Your task to perform on an android device: open chrome and create a bookmark for the current page Image 0: 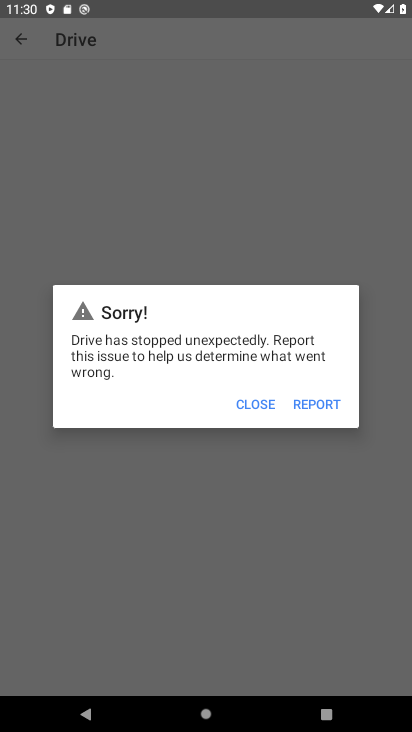
Step 0: press home button
Your task to perform on an android device: open chrome and create a bookmark for the current page Image 1: 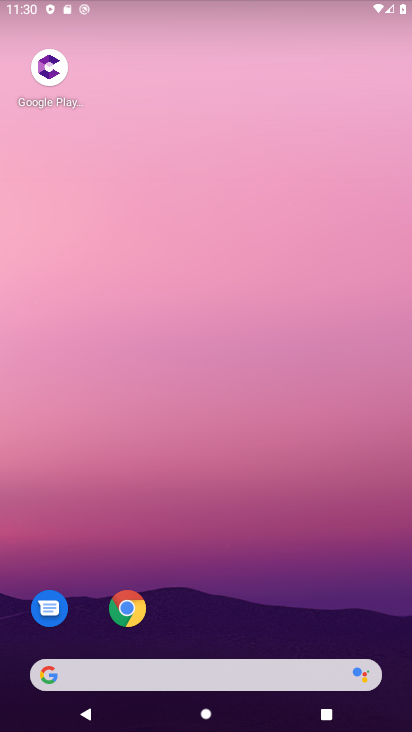
Step 1: drag from (151, 710) to (294, 0)
Your task to perform on an android device: open chrome and create a bookmark for the current page Image 2: 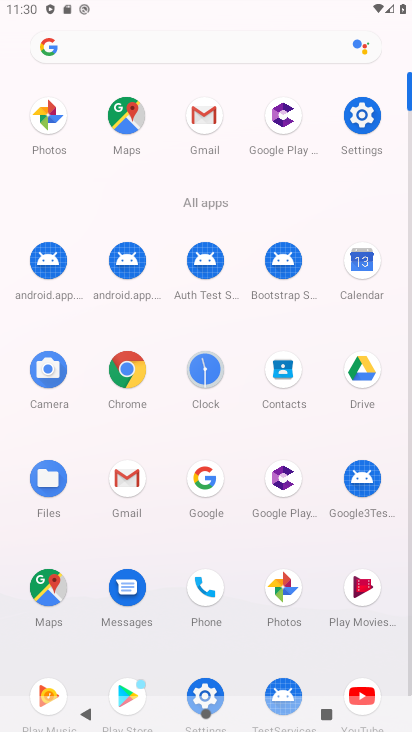
Step 2: click (130, 370)
Your task to perform on an android device: open chrome and create a bookmark for the current page Image 3: 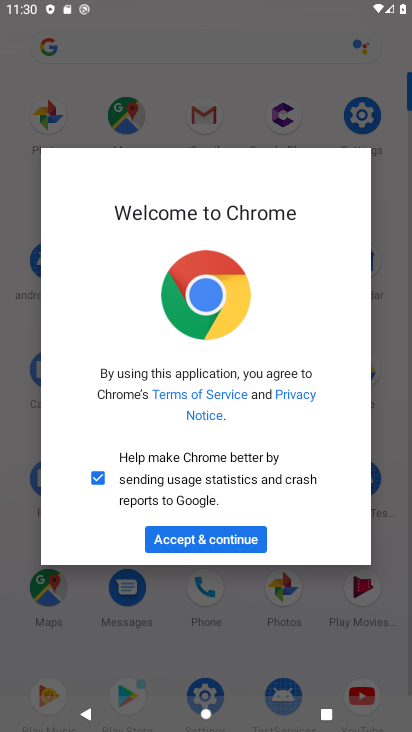
Step 3: click (225, 540)
Your task to perform on an android device: open chrome and create a bookmark for the current page Image 4: 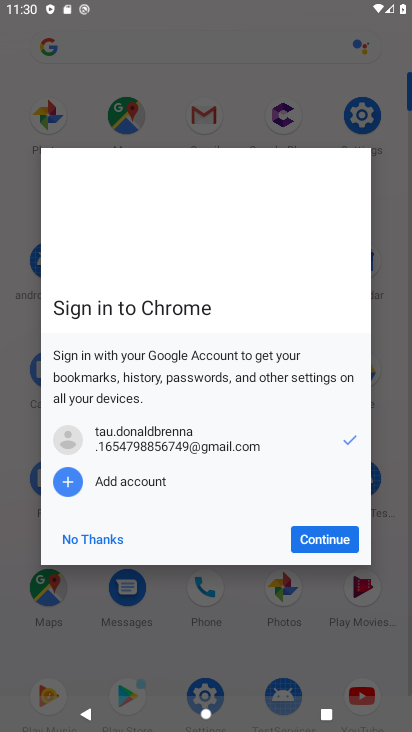
Step 4: click (306, 528)
Your task to perform on an android device: open chrome and create a bookmark for the current page Image 5: 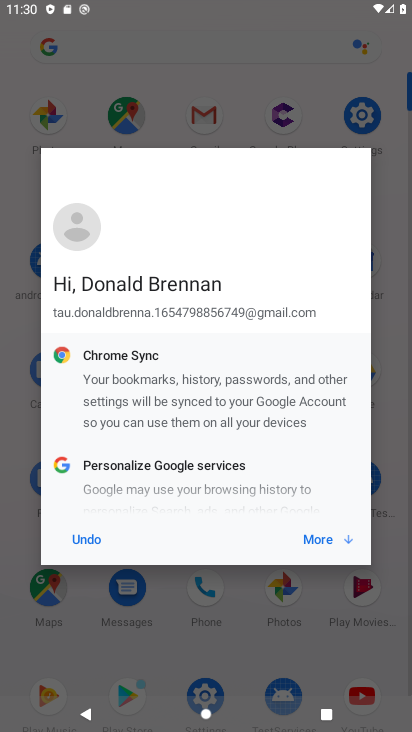
Step 5: click (335, 539)
Your task to perform on an android device: open chrome and create a bookmark for the current page Image 6: 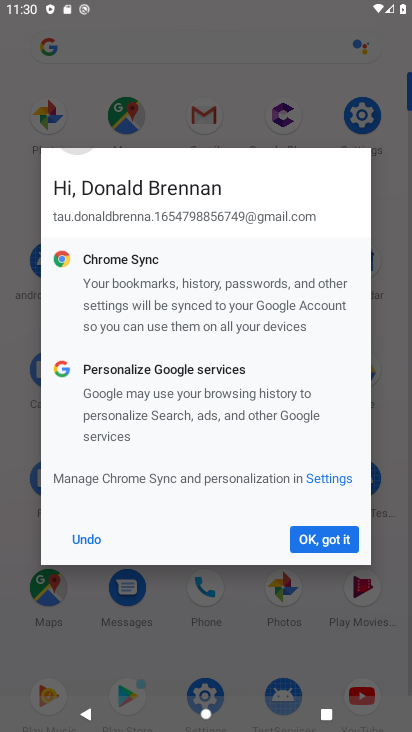
Step 6: click (335, 539)
Your task to perform on an android device: open chrome and create a bookmark for the current page Image 7: 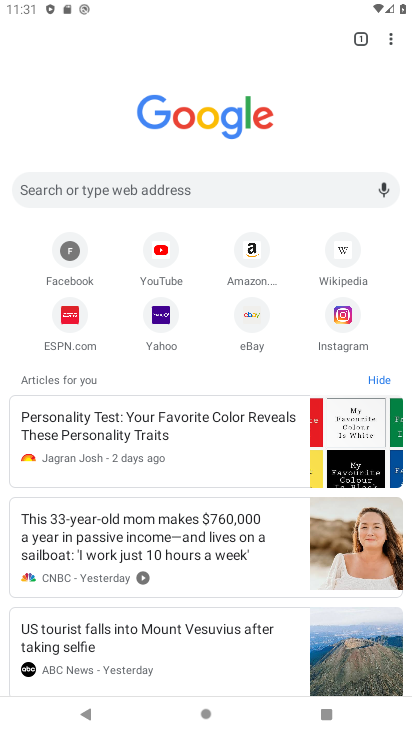
Step 7: click (289, 187)
Your task to perform on an android device: open chrome and create a bookmark for the current page Image 8: 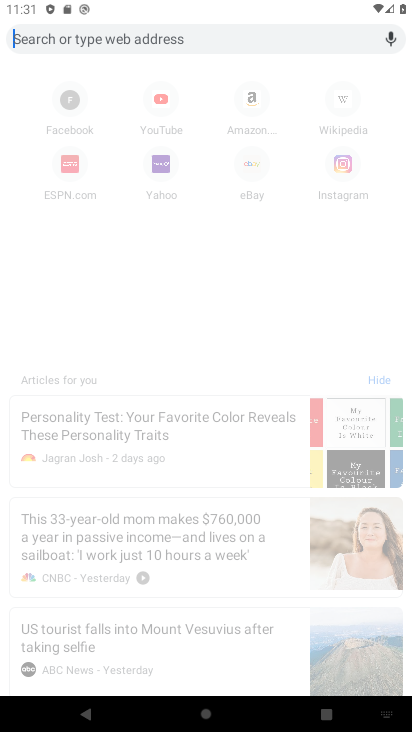
Step 8: click (269, 270)
Your task to perform on an android device: open chrome and create a bookmark for the current page Image 9: 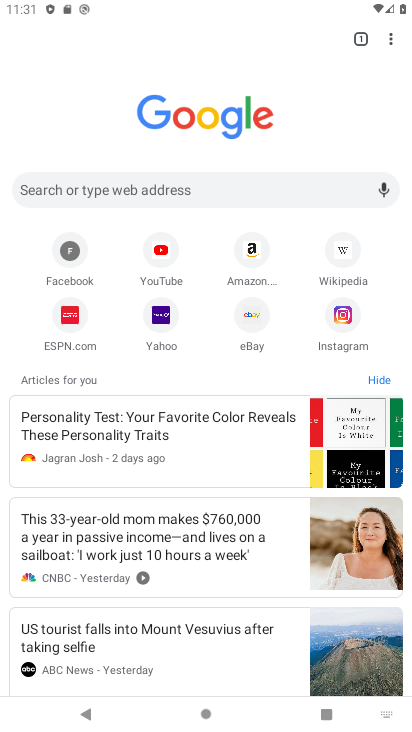
Step 9: click (391, 37)
Your task to perform on an android device: open chrome and create a bookmark for the current page Image 10: 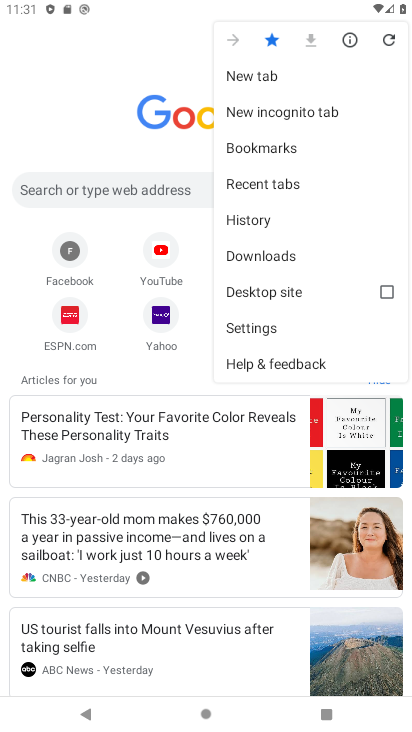
Step 10: click (129, 102)
Your task to perform on an android device: open chrome and create a bookmark for the current page Image 11: 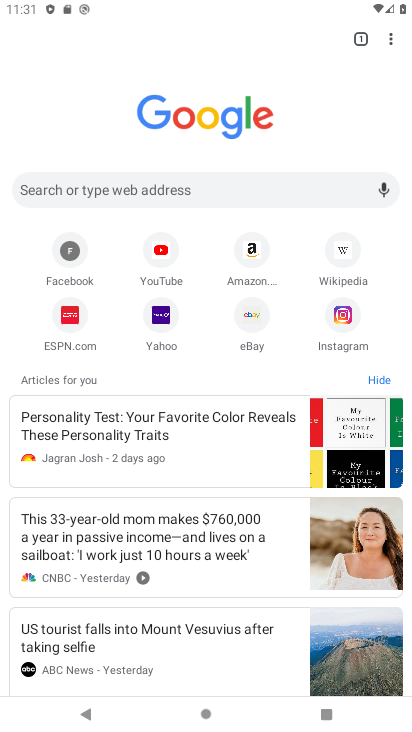
Step 11: task complete